Your task to perform on an android device: clear history in the chrome app Image 0: 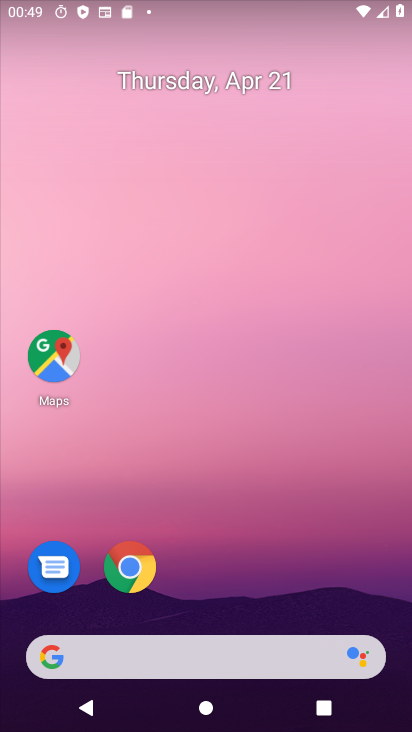
Step 0: drag from (262, 362) to (275, 213)
Your task to perform on an android device: clear history in the chrome app Image 1: 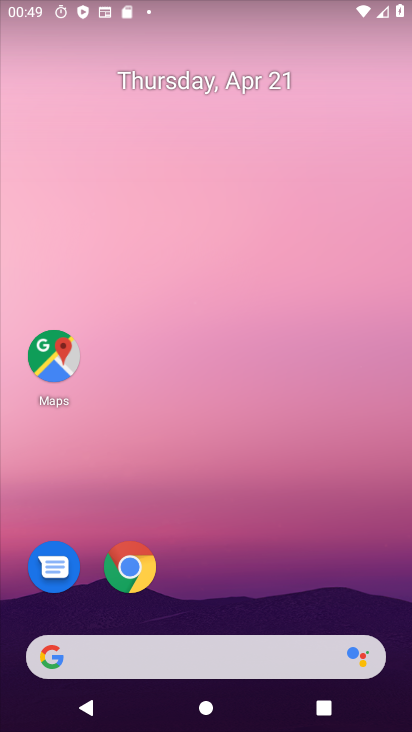
Step 1: drag from (260, 595) to (245, 220)
Your task to perform on an android device: clear history in the chrome app Image 2: 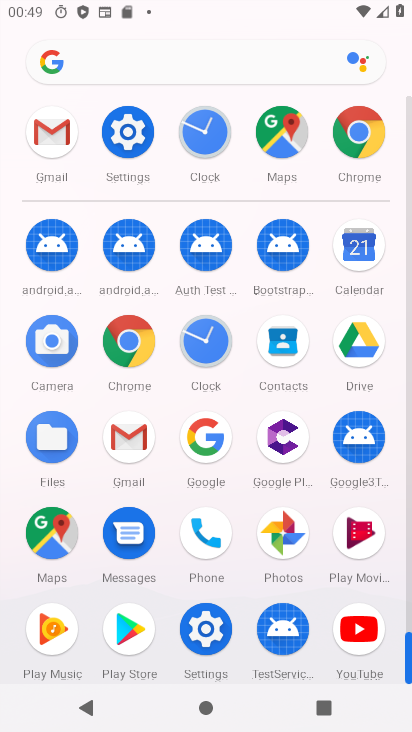
Step 2: click (352, 129)
Your task to perform on an android device: clear history in the chrome app Image 3: 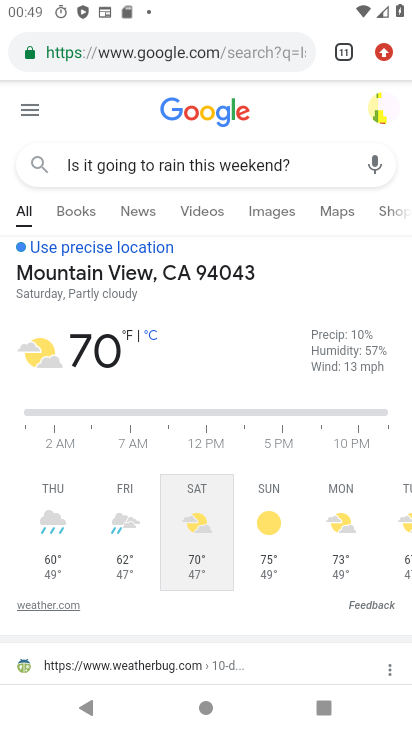
Step 3: click (386, 45)
Your task to perform on an android device: clear history in the chrome app Image 4: 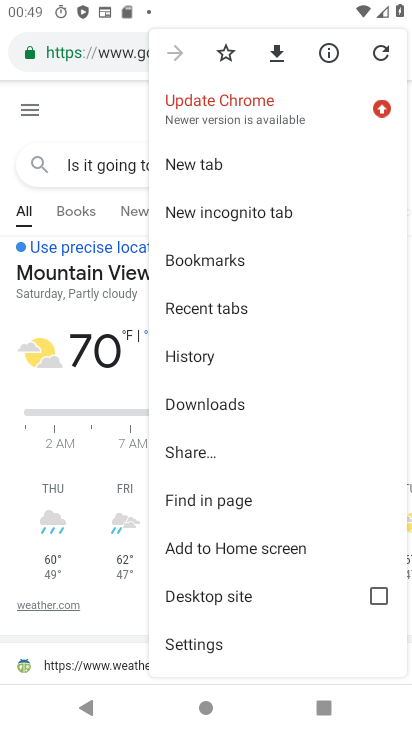
Step 4: click (204, 354)
Your task to perform on an android device: clear history in the chrome app Image 5: 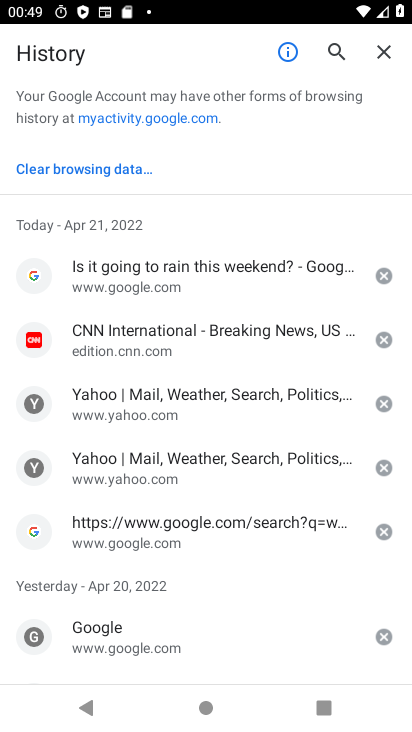
Step 5: click (80, 168)
Your task to perform on an android device: clear history in the chrome app Image 6: 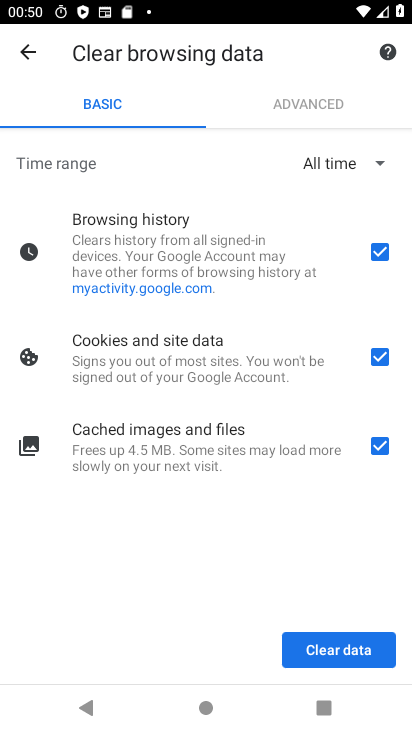
Step 6: click (301, 642)
Your task to perform on an android device: clear history in the chrome app Image 7: 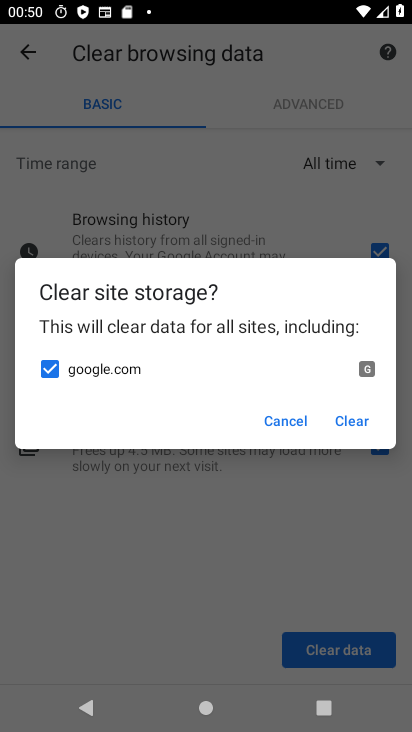
Step 7: click (362, 421)
Your task to perform on an android device: clear history in the chrome app Image 8: 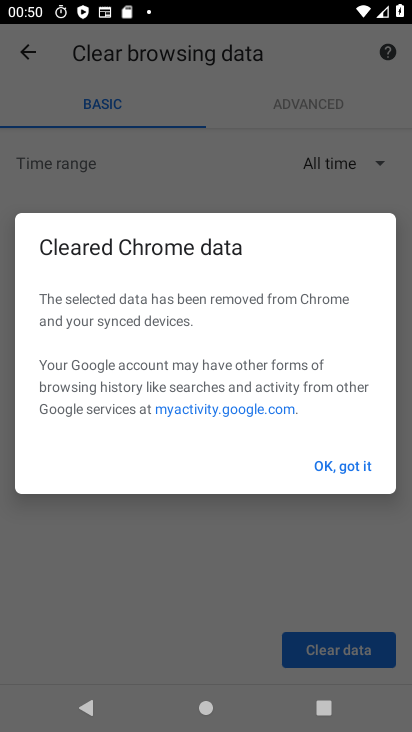
Step 8: click (348, 456)
Your task to perform on an android device: clear history in the chrome app Image 9: 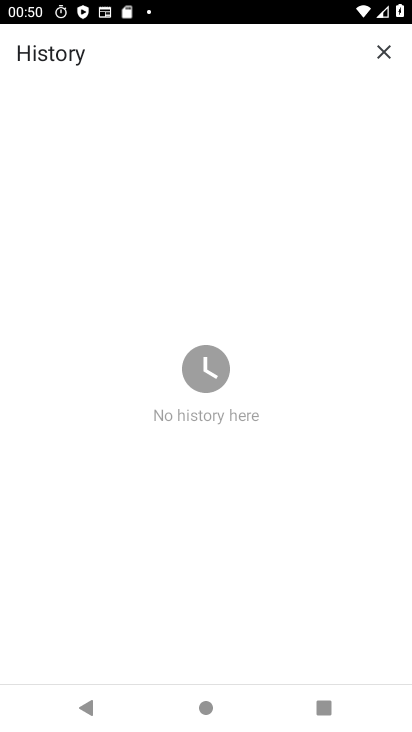
Step 9: task complete